Your task to perform on an android device: Search for macbook pro 13 inch on newegg.com, select the first entry, add it to the cart, then select checkout. Image 0: 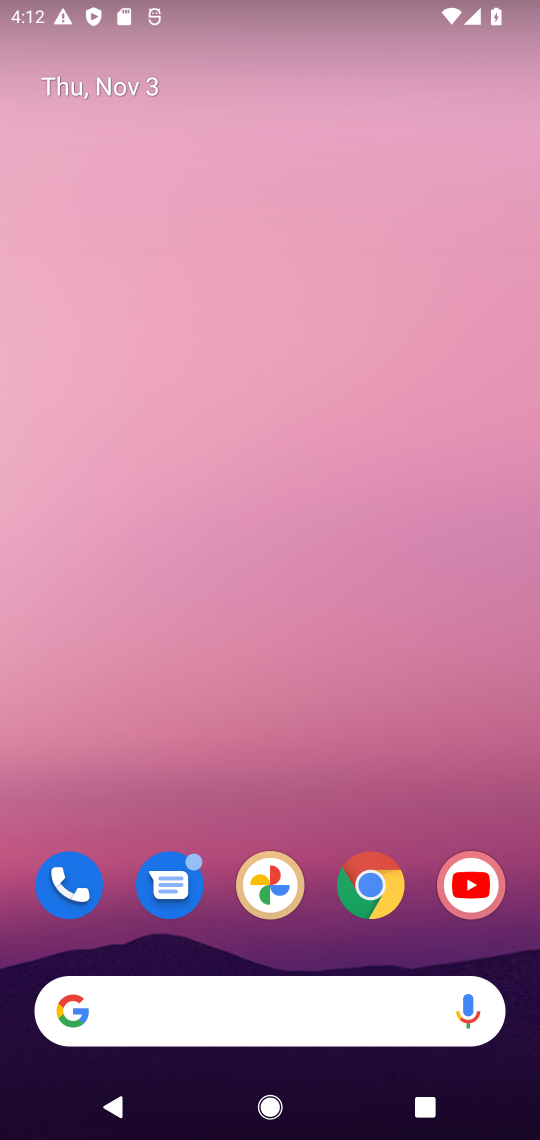
Step 0: click (365, 889)
Your task to perform on an android device: Search for macbook pro 13 inch on newegg.com, select the first entry, add it to the cart, then select checkout. Image 1: 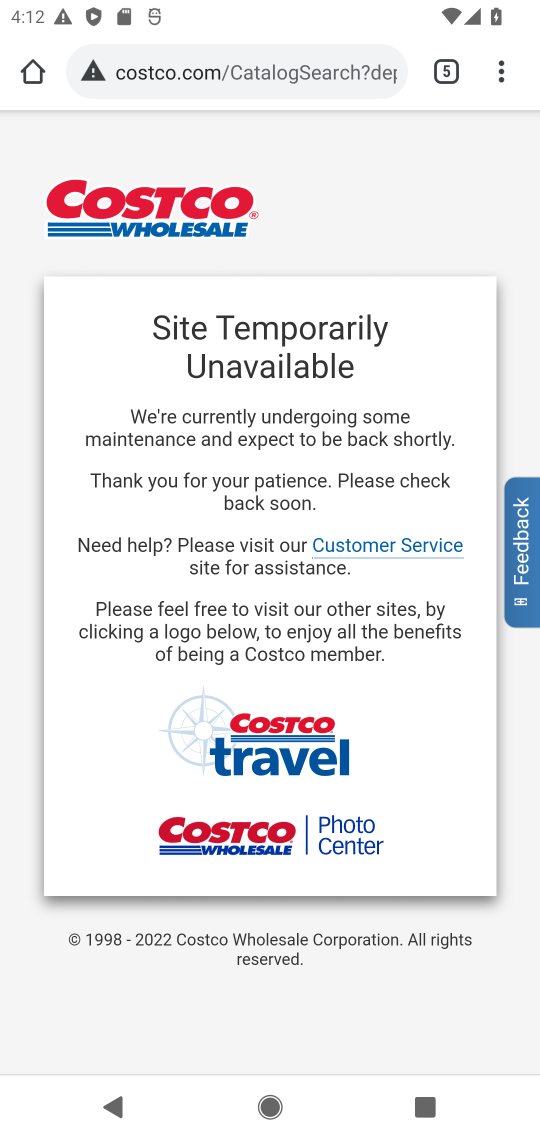
Step 1: click (444, 68)
Your task to perform on an android device: Search for macbook pro 13 inch on newegg.com, select the first entry, add it to the cart, then select checkout. Image 2: 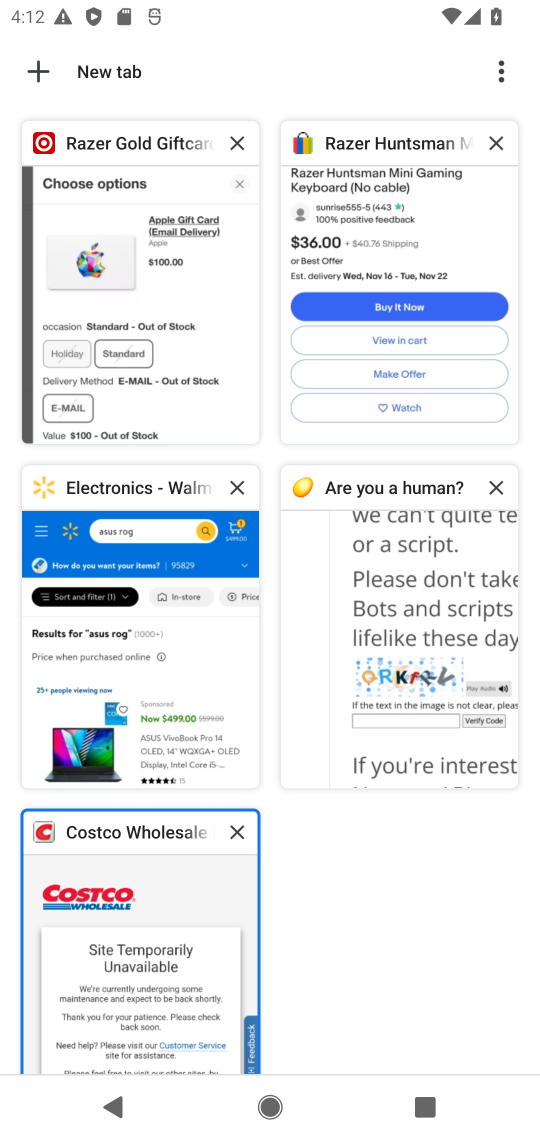
Step 2: click (462, 619)
Your task to perform on an android device: Search for macbook pro 13 inch on newegg.com, select the first entry, add it to the cart, then select checkout. Image 3: 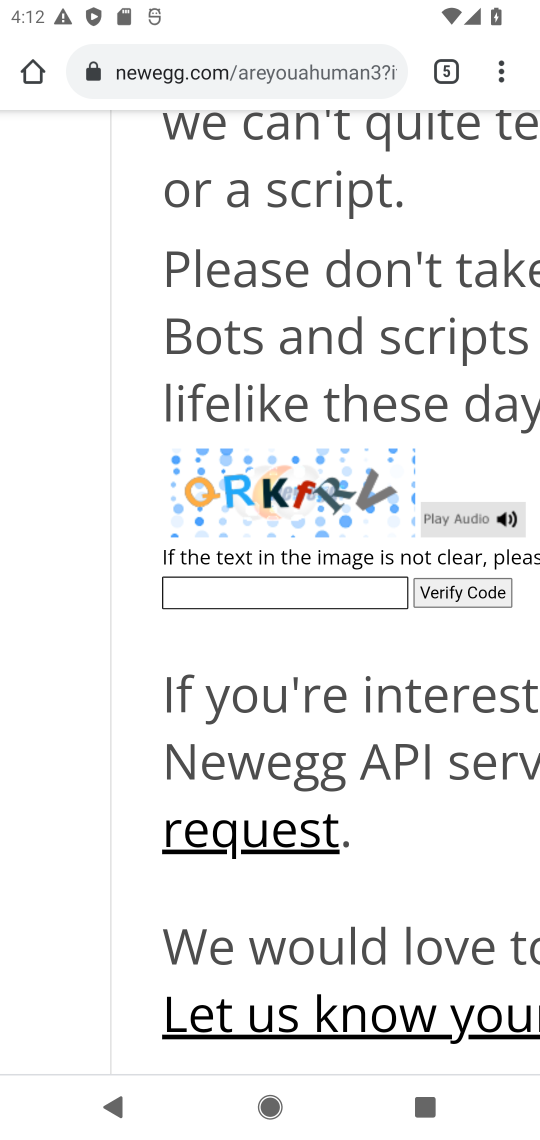
Step 3: type "QRKfRV"
Your task to perform on an android device: Search for macbook pro 13 inch on newegg.com, select the first entry, add it to the cart, then select checkout. Image 4: 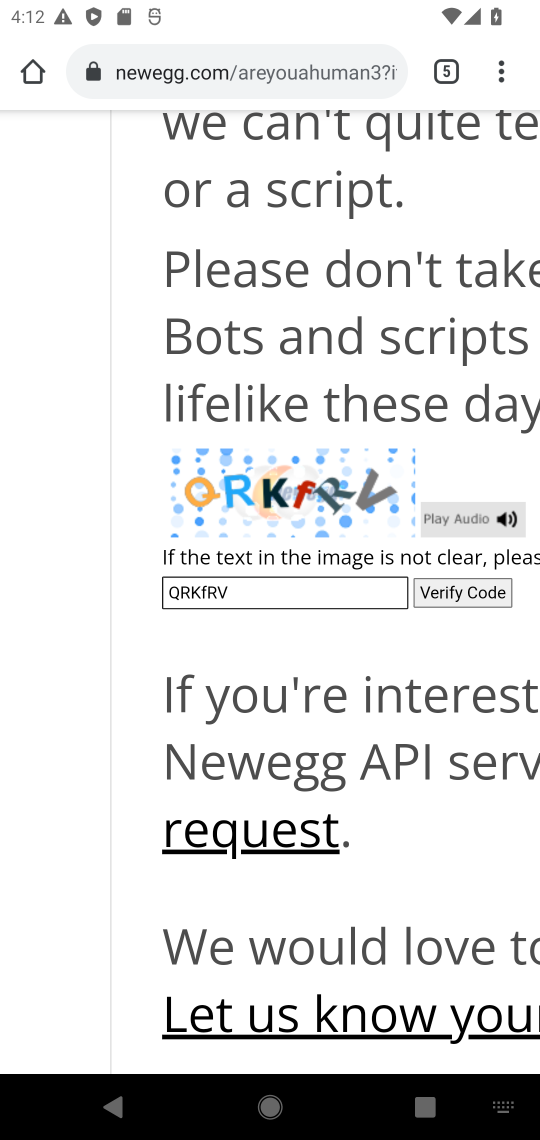
Step 4: click (441, 593)
Your task to perform on an android device: Search for macbook pro 13 inch on newegg.com, select the first entry, add it to the cart, then select checkout. Image 5: 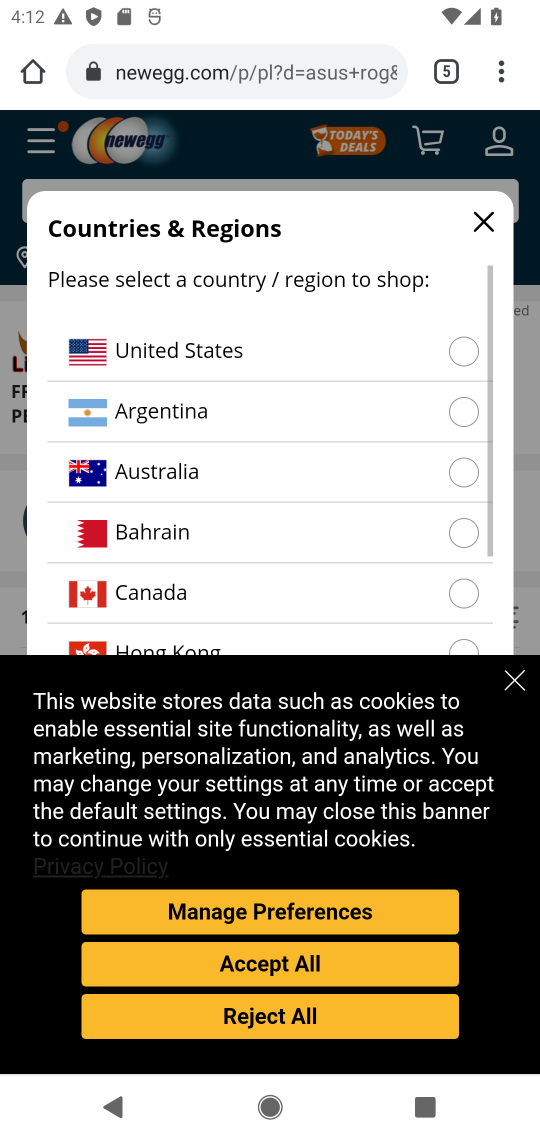
Step 5: click (272, 975)
Your task to perform on an android device: Search for macbook pro 13 inch on newegg.com, select the first entry, add it to the cart, then select checkout. Image 6: 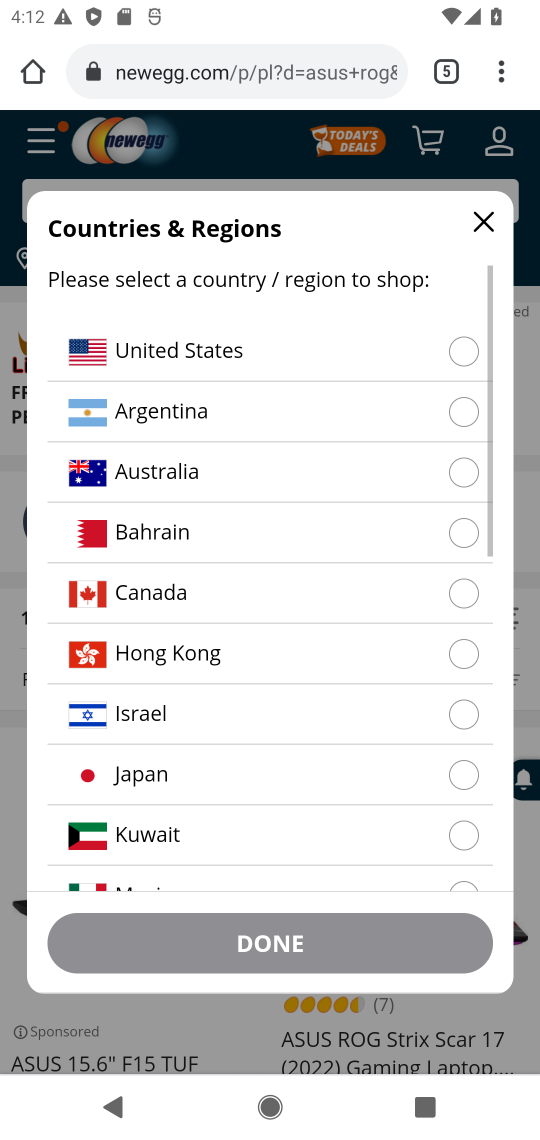
Step 6: click (465, 350)
Your task to perform on an android device: Search for macbook pro 13 inch on newegg.com, select the first entry, add it to the cart, then select checkout. Image 7: 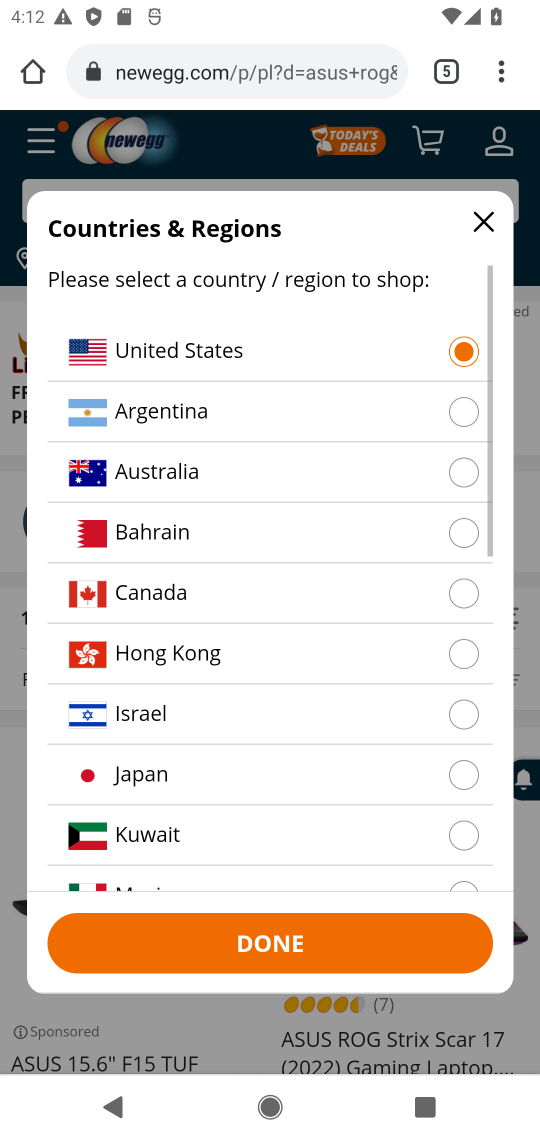
Step 7: click (279, 943)
Your task to perform on an android device: Search for macbook pro 13 inch on newegg.com, select the first entry, add it to the cart, then select checkout. Image 8: 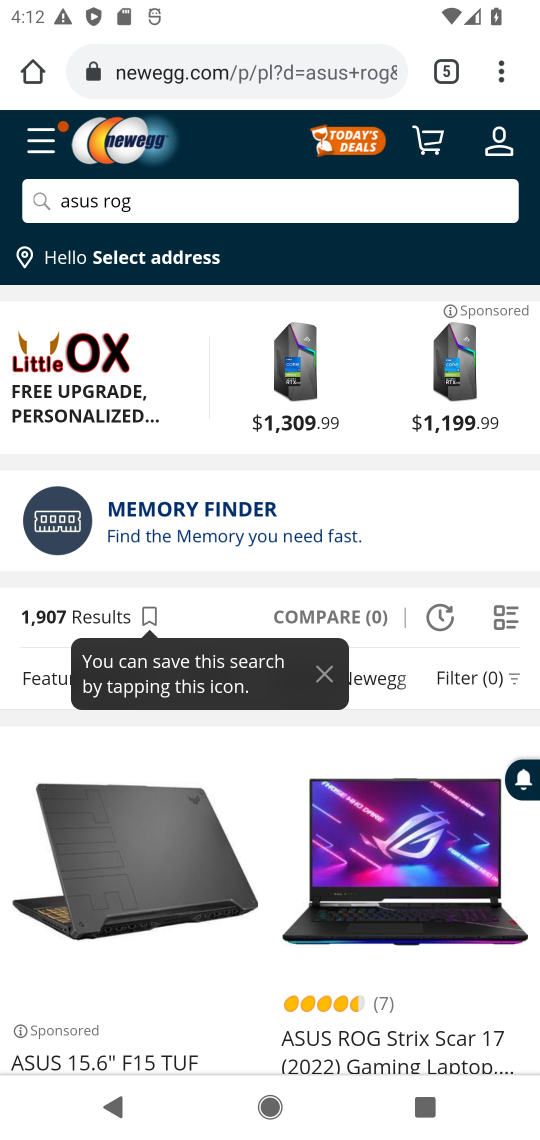
Step 8: click (324, 202)
Your task to perform on an android device: Search for macbook pro 13 inch on newegg.com, select the first entry, add it to the cart, then select checkout. Image 9: 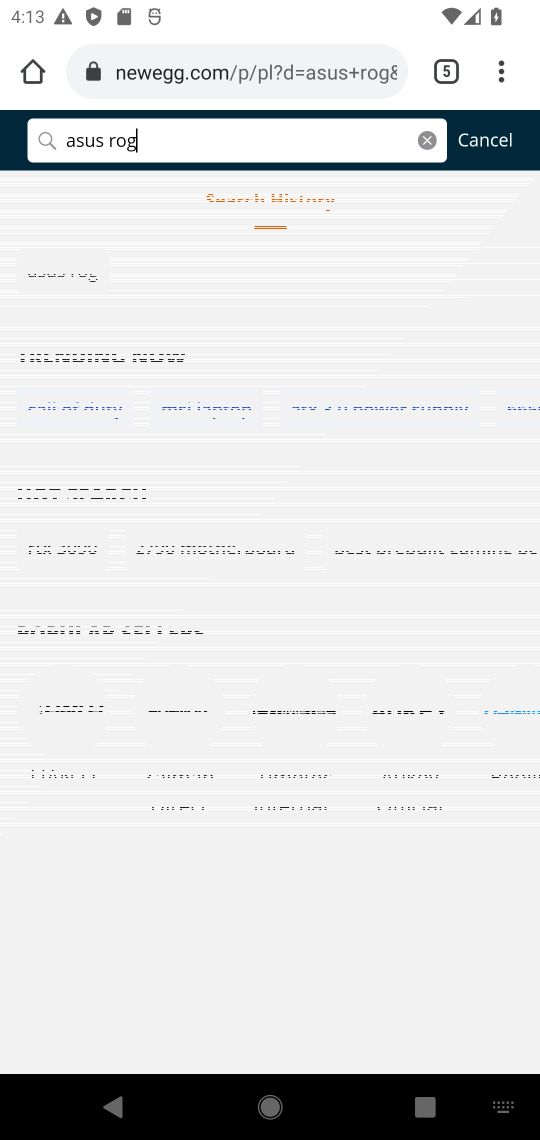
Step 9: click (422, 142)
Your task to perform on an android device: Search for macbook pro 13 inch on newegg.com, select the first entry, add it to the cart, then select checkout. Image 10: 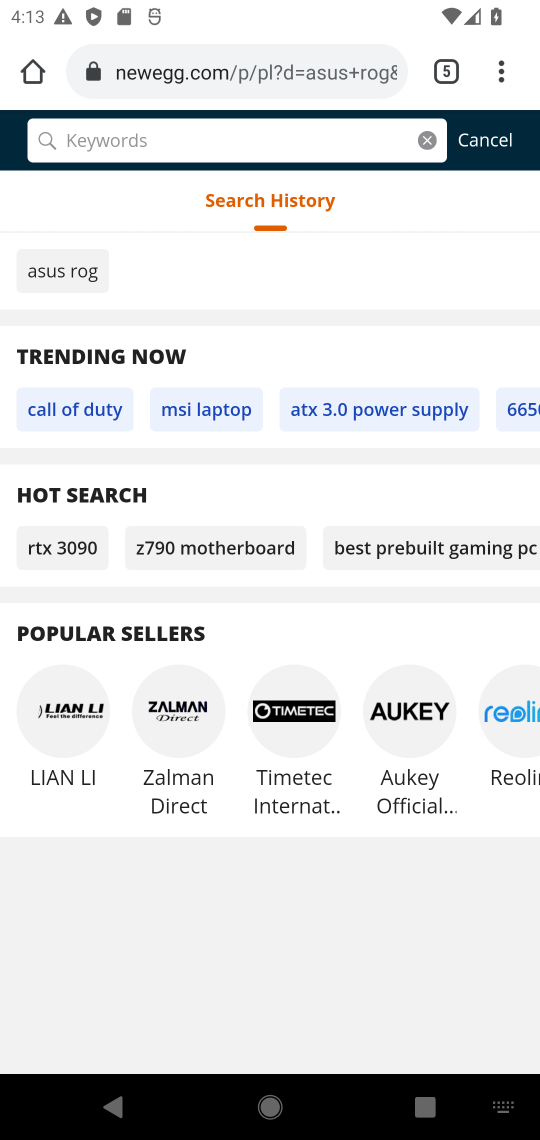
Step 10: type "macbook pro 13 inch"
Your task to perform on an android device: Search for macbook pro 13 inch on newegg.com, select the first entry, add it to the cart, then select checkout. Image 11: 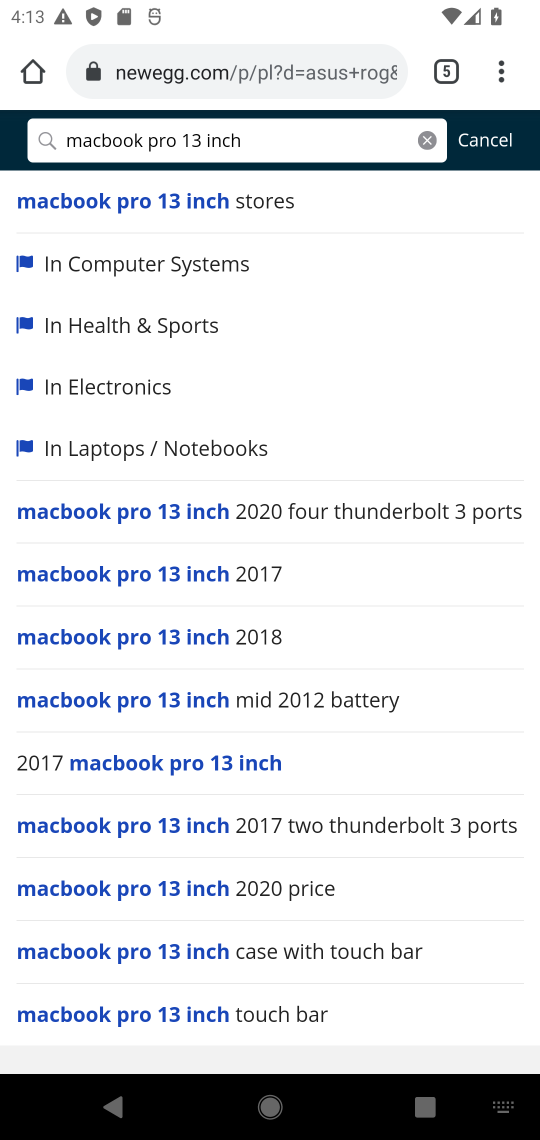
Step 11: click (258, 201)
Your task to perform on an android device: Search for macbook pro 13 inch on newegg.com, select the first entry, add it to the cart, then select checkout. Image 12: 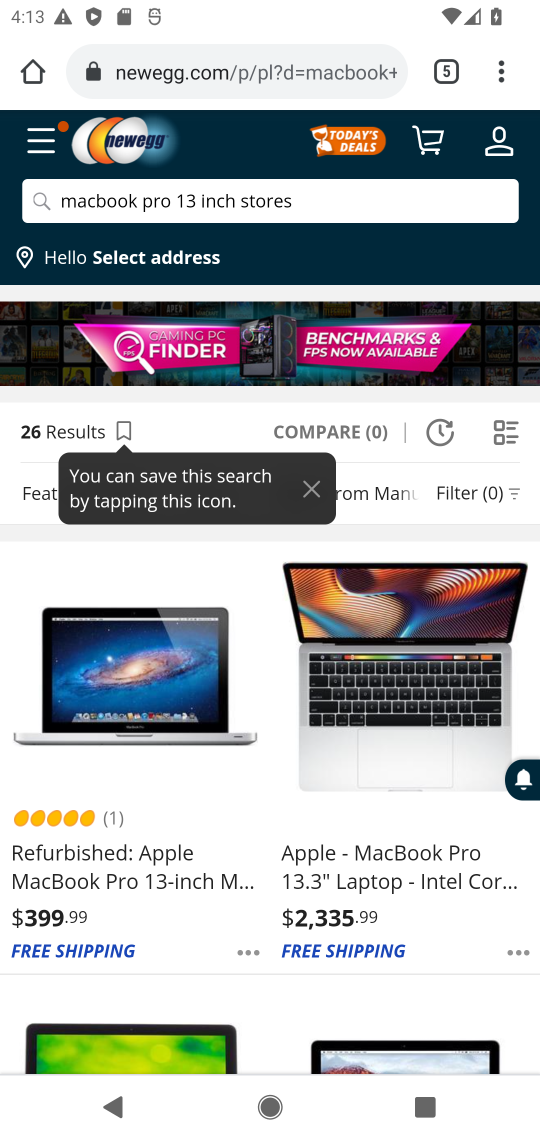
Step 12: click (372, 883)
Your task to perform on an android device: Search for macbook pro 13 inch on newegg.com, select the first entry, add it to the cart, then select checkout. Image 13: 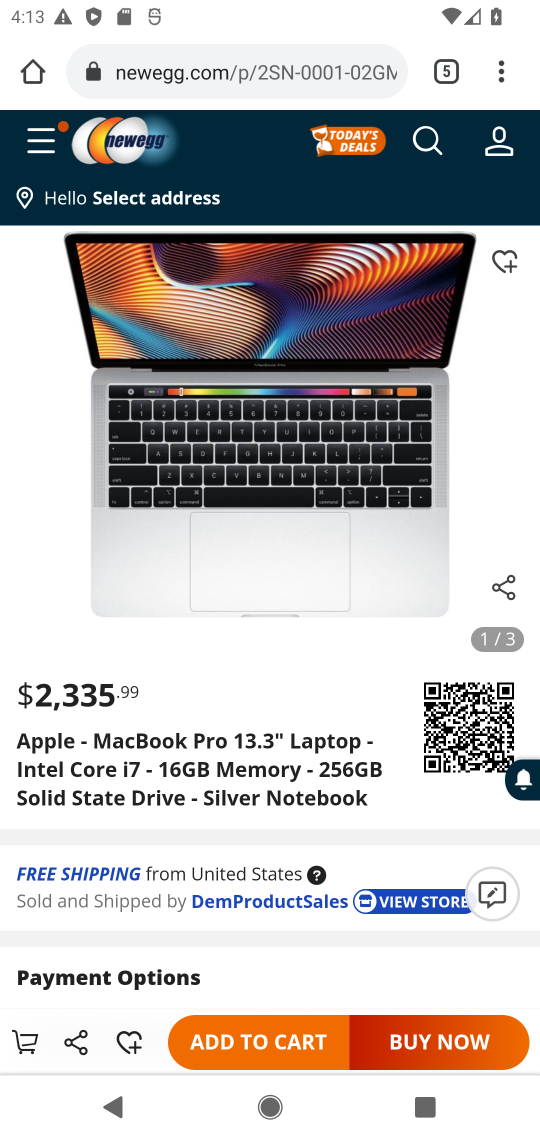
Step 13: click (242, 1037)
Your task to perform on an android device: Search for macbook pro 13 inch on newegg.com, select the first entry, add it to the cart, then select checkout. Image 14: 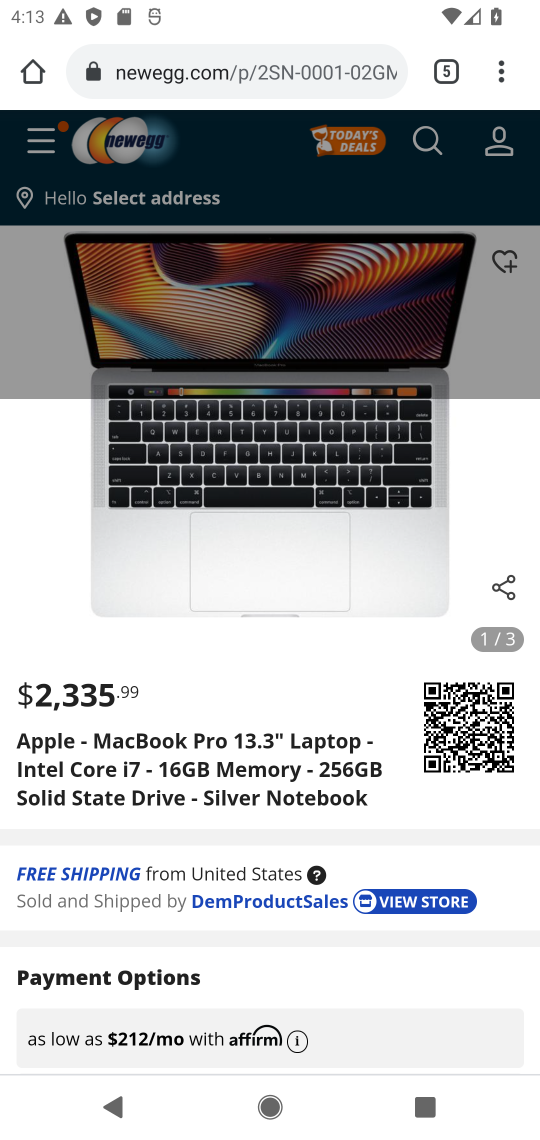
Step 14: click (29, 1047)
Your task to perform on an android device: Search for macbook pro 13 inch on newegg.com, select the first entry, add it to the cart, then select checkout. Image 15: 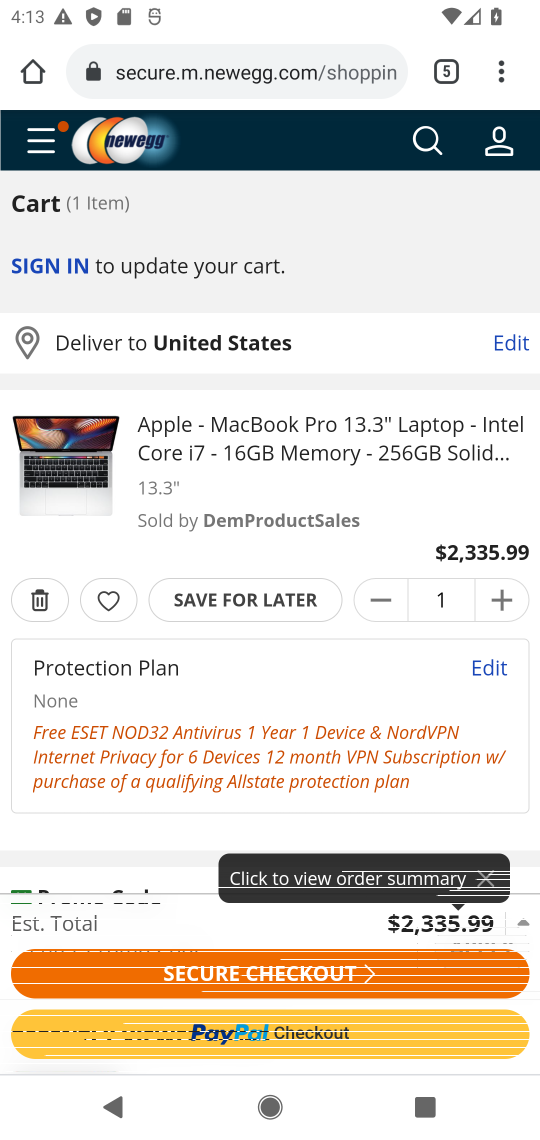
Step 15: click (265, 970)
Your task to perform on an android device: Search for macbook pro 13 inch on newegg.com, select the first entry, add it to the cart, then select checkout. Image 16: 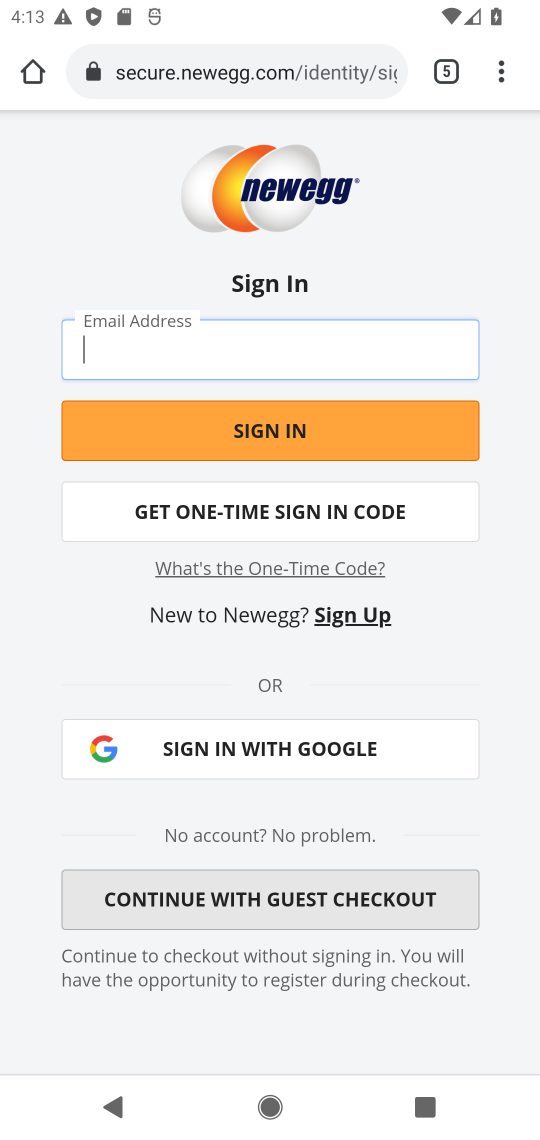
Step 16: task complete